Your task to perform on an android device: turn on showing notifications on the lock screen Image 0: 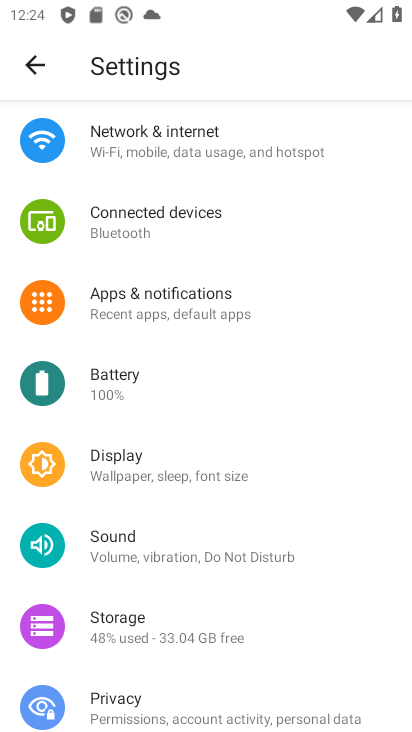
Step 0: click (217, 301)
Your task to perform on an android device: turn on showing notifications on the lock screen Image 1: 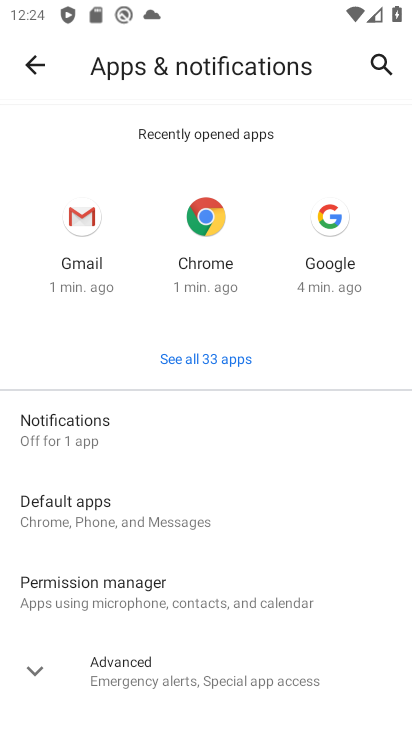
Step 1: drag from (259, 651) to (268, 394)
Your task to perform on an android device: turn on showing notifications on the lock screen Image 2: 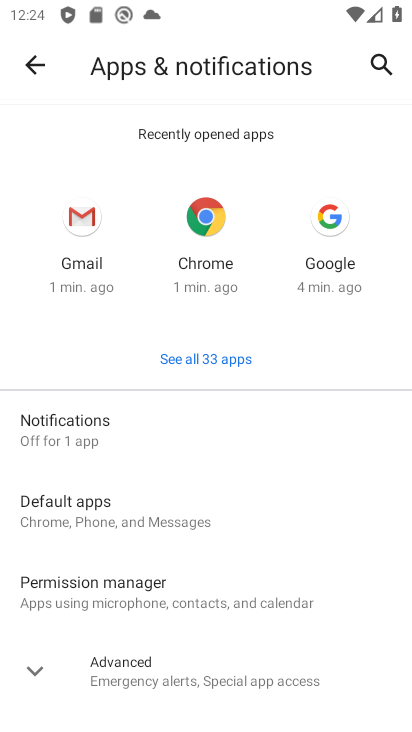
Step 2: click (55, 430)
Your task to perform on an android device: turn on showing notifications on the lock screen Image 3: 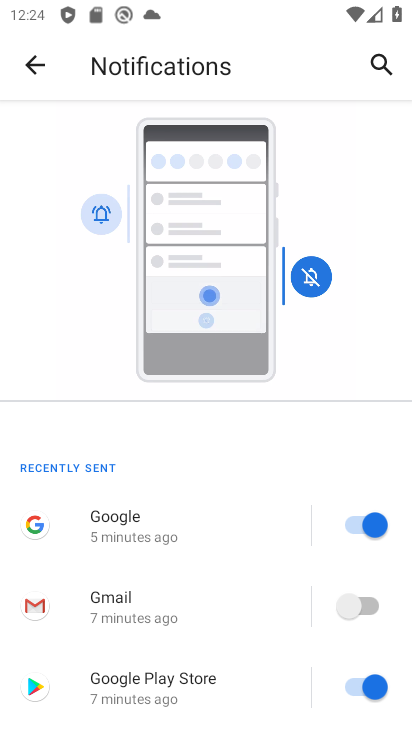
Step 3: drag from (264, 589) to (287, 357)
Your task to perform on an android device: turn on showing notifications on the lock screen Image 4: 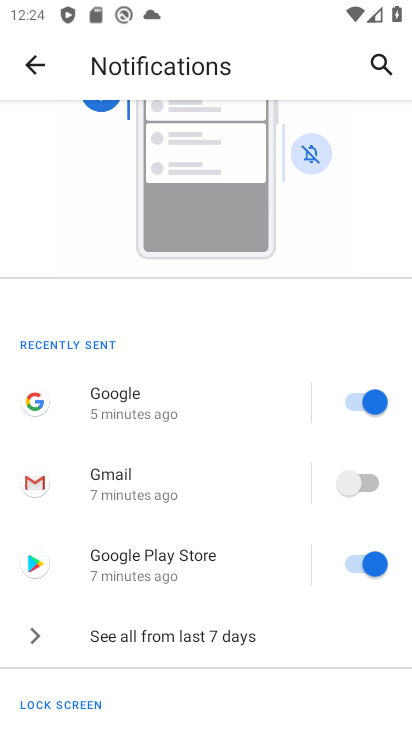
Step 4: drag from (269, 674) to (285, 309)
Your task to perform on an android device: turn on showing notifications on the lock screen Image 5: 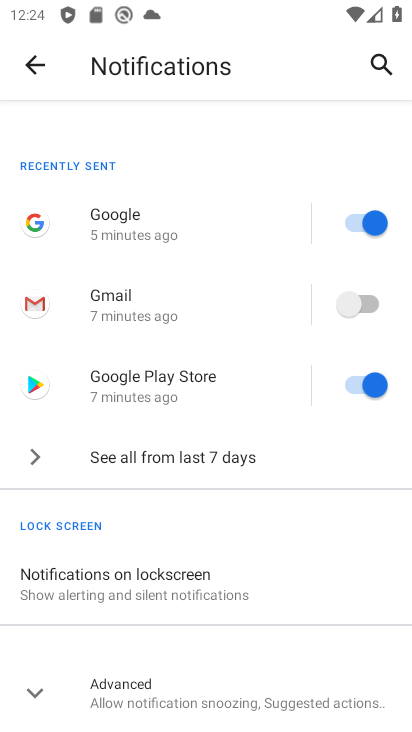
Step 5: click (127, 579)
Your task to perform on an android device: turn on showing notifications on the lock screen Image 6: 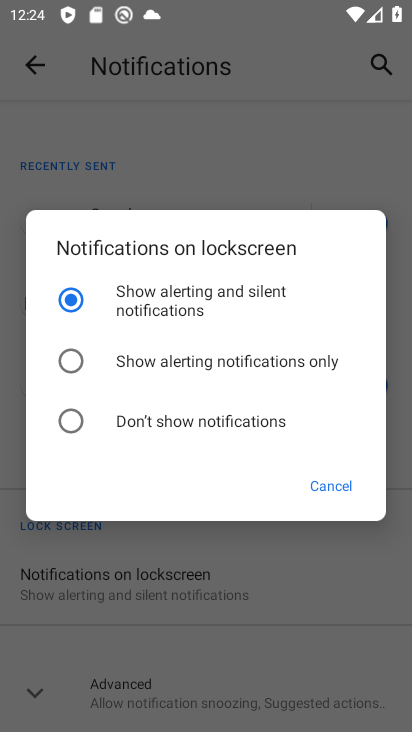
Step 6: click (150, 363)
Your task to perform on an android device: turn on showing notifications on the lock screen Image 7: 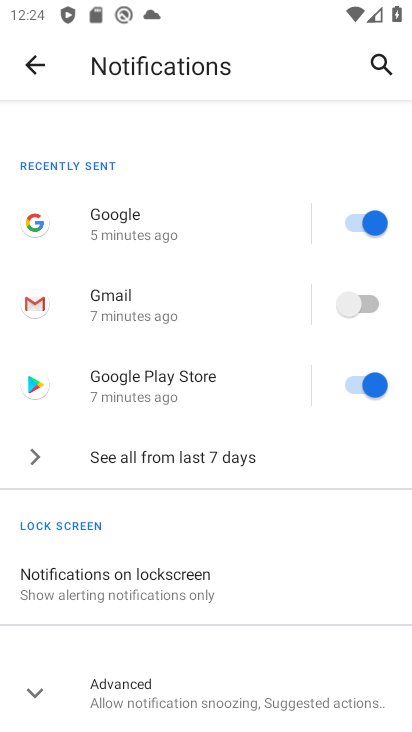
Step 7: task complete